Your task to perform on an android device: Go to Maps Image 0: 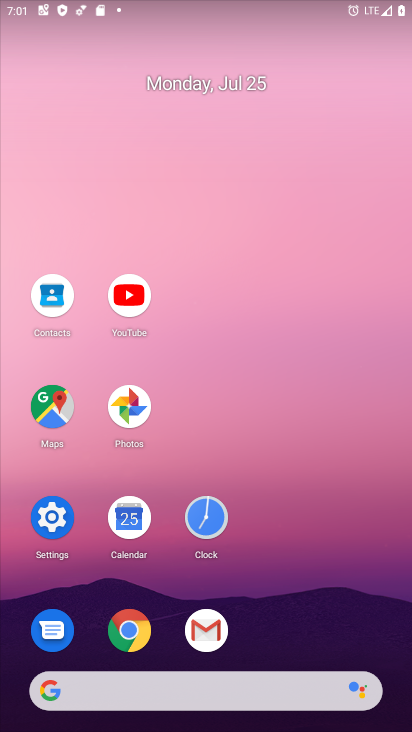
Step 0: click (53, 403)
Your task to perform on an android device: Go to Maps Image 1: 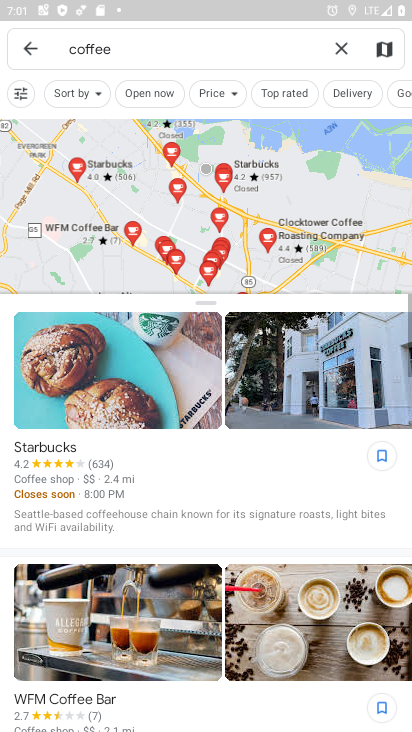
Step 1: click (34, 46)
Your task to perform on an android device: Go to Maps Image 2: 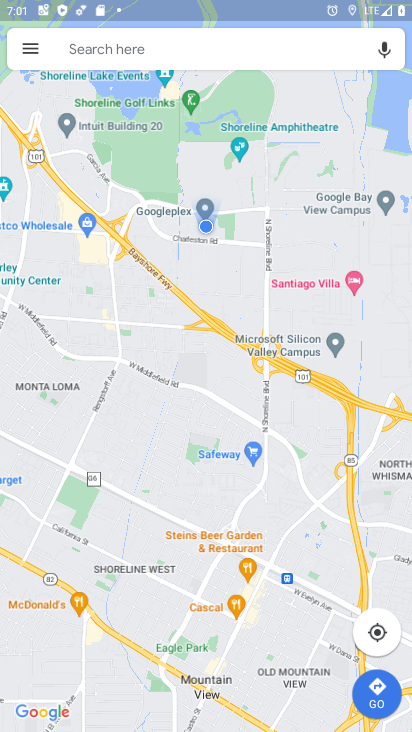
Step 2: task complete